Your task to perform on an android device: find photos in the google photos app Image 0: 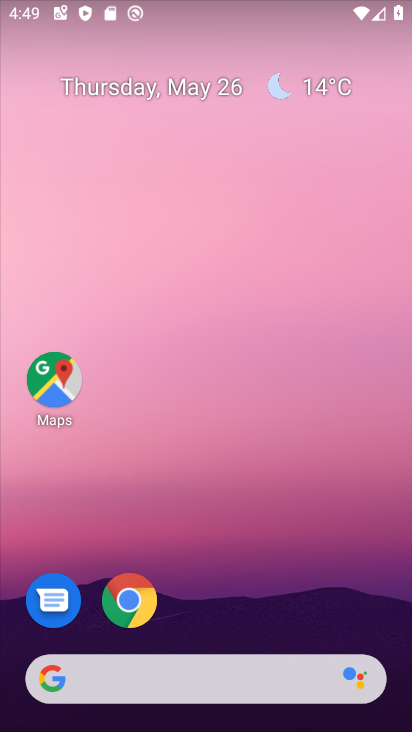
Step 0: drag from (197, 437) to (183, 315)
Your task to perform on an android device: find photos in the google photos app Image 1: 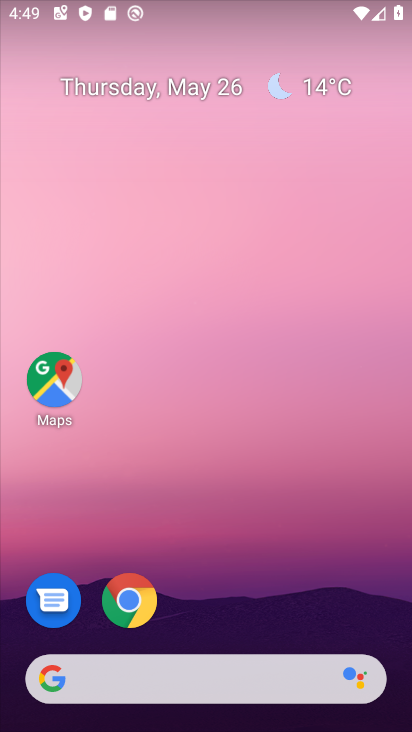
Step 1: drag from (197, 614) to (216, 95)
Your task to perform on an android device: find photos in the google photos app Image 2: 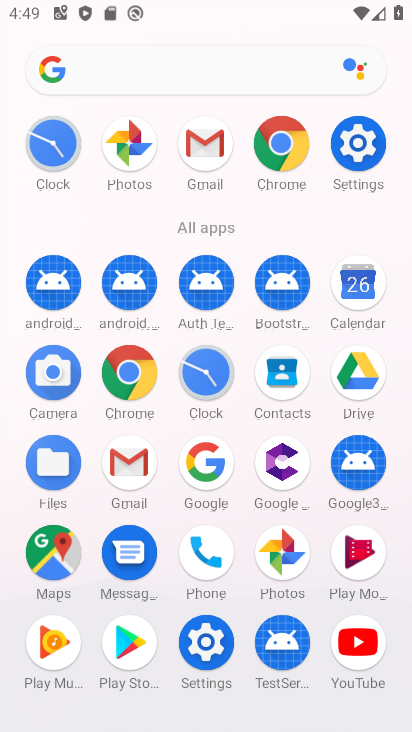
Step 2: click (107, 138)
Your task to perform on an android device: find photos in the google photos app Image 3: 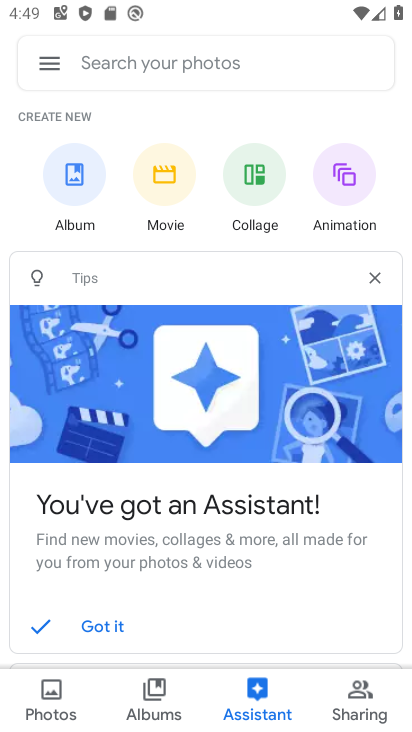
Step 3: click (56, 697)
Your task to perform on an android device: find photos in the google photos app Image 4: 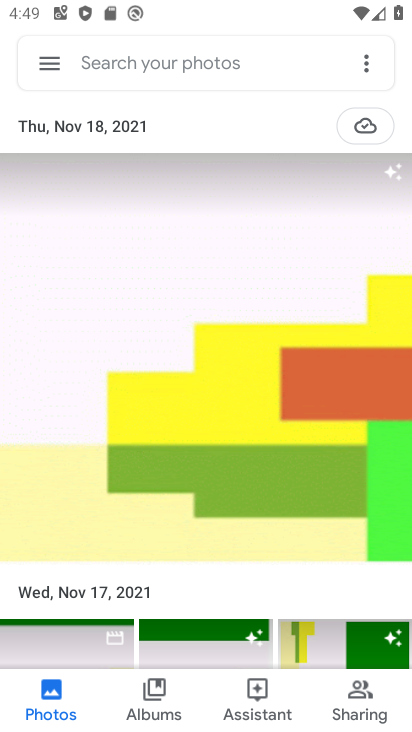
Step 4: task complete